Your task to perform on an android device: see creations saved in the google photos Image 0: 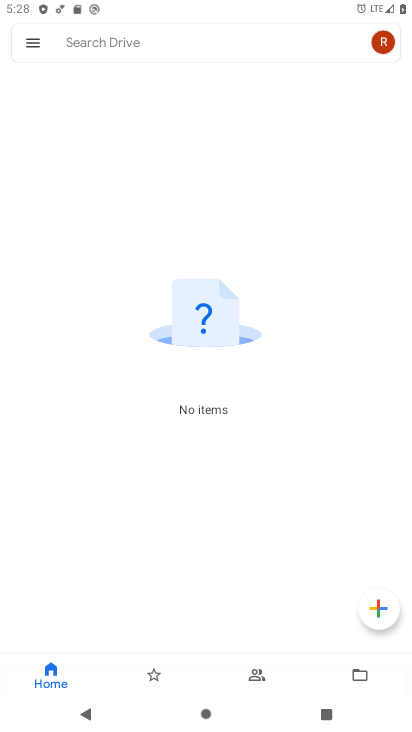
Step 0: press home button
Your task to perform on an android device: see creations saved in the google photos Image 1: 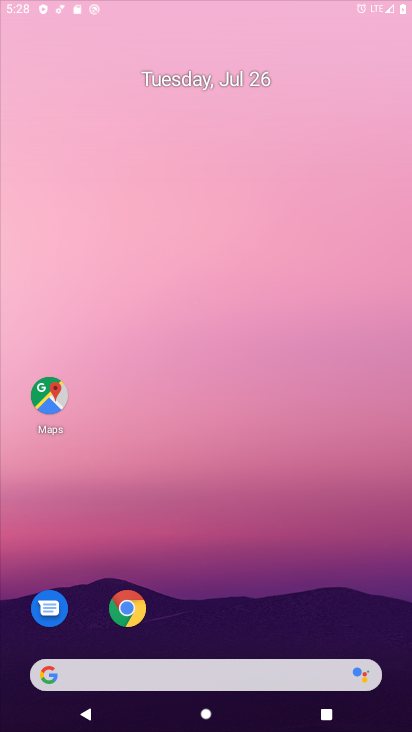
Step 1: drag from (318, 612) to (180, 34)
Your task to perform on an android device: see creations saved in the google photos Image 2: 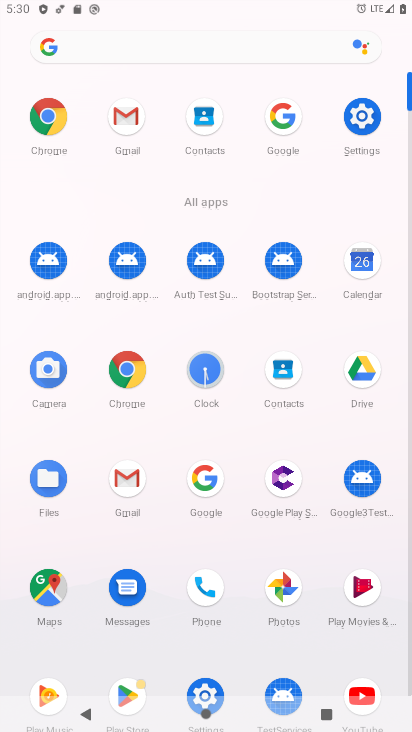
Step 2: click (287, 600)
Your task to perform on an android device: see creations saved in the google photos Image 3: 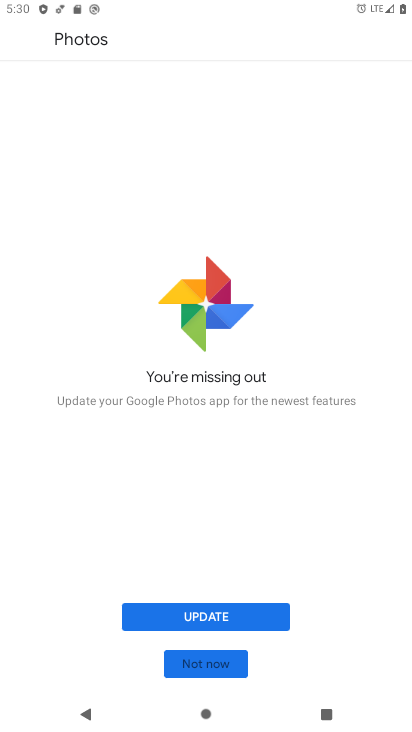
Step 3: click (202, 620)
Your task to perform on an android device: see creations saved in the google photos Image 4: 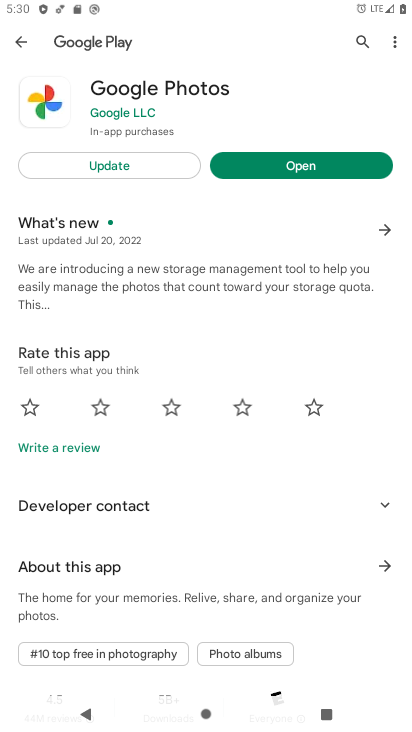
Step 4: click (119, 172)
Your task to perform on an android device: see creations saved in the google photos Image 5: 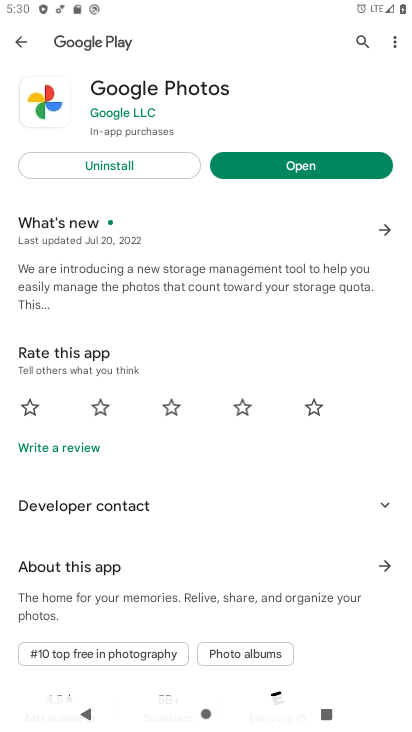
Step 5: click (345, 170)
Your task to perform on an android device: see creations saved in the google photos Image 6: 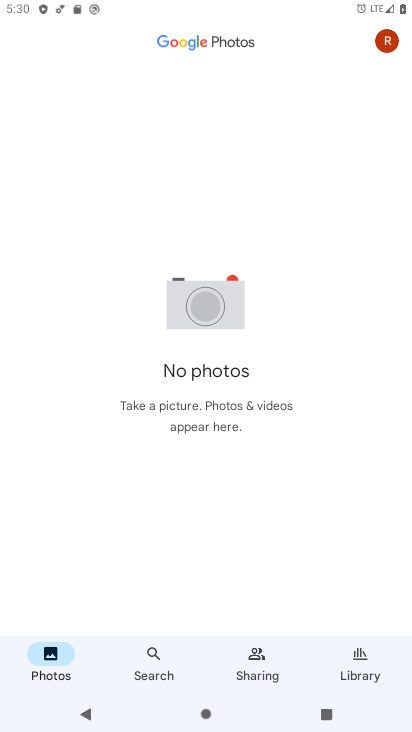
Step 6: click (150, 656)
Your task to perform on an android device: see creations saved in the google photos Image 7: 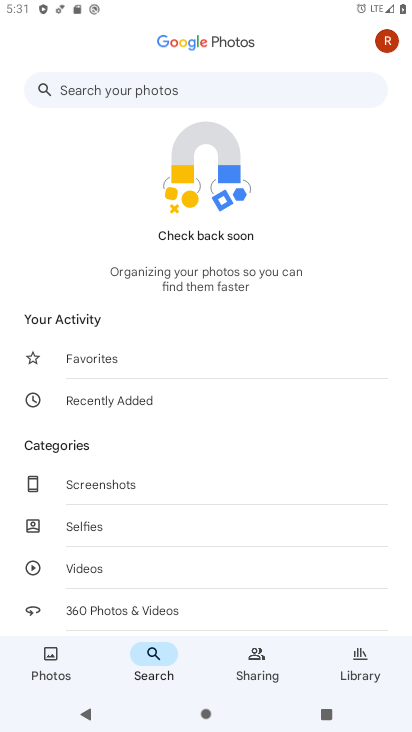
Step 7: drag from (127, 493) to (131, 237)
Your task to perform on an android device: see creations saved in the google photos Image 8: 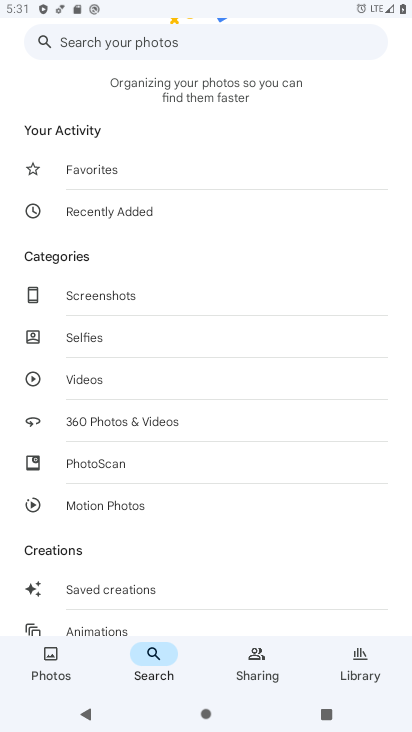
Step 8: click (73, 590)
Your task to perform on an android device: see creations saved in the google photos Image 9: 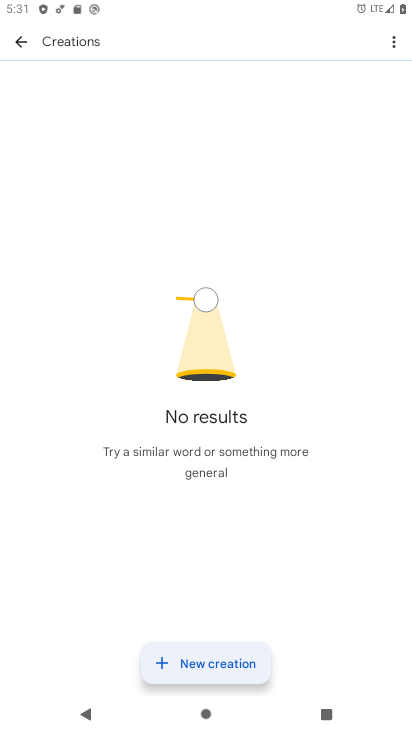
Step 9: task complete